Your task to perform on an android device: Open wifi settings Image 0: 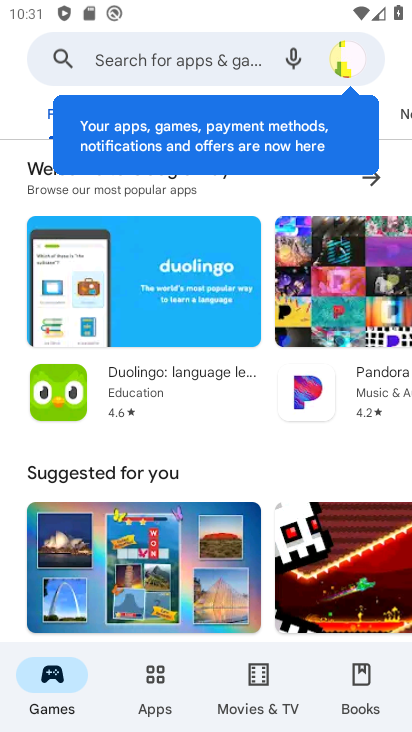
Step 0: press home button
Your task to perform on an android device: Open wifi settings Image 1: 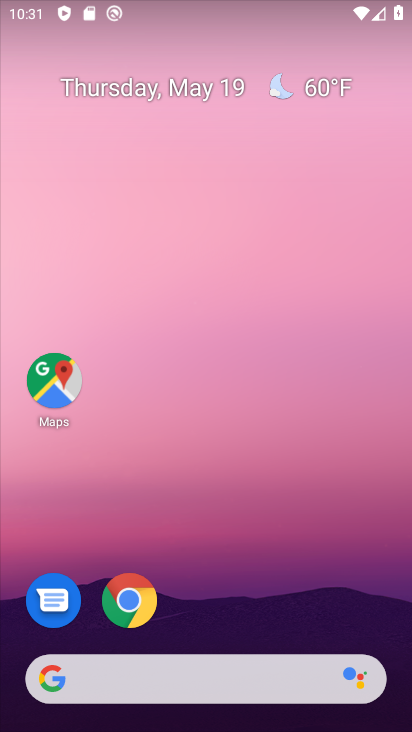
Step 1: drag from (385, 603) to (391, 269)
Your task to perform on an android device: Open wifi settings Image 2: 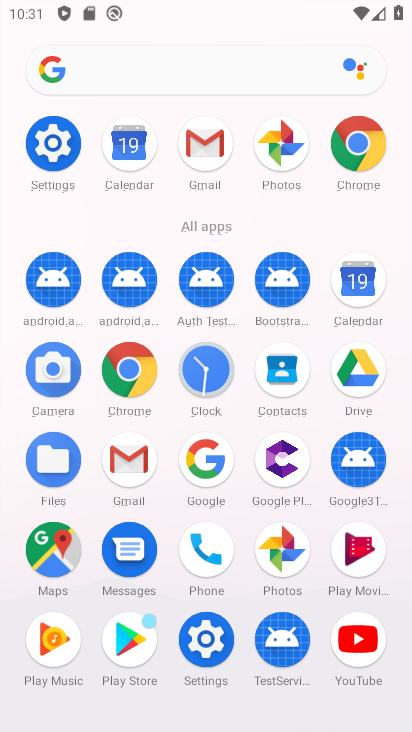
Step 2: click (57, 161)
Your task to perform on an android device: Open wifi settings Image 3: 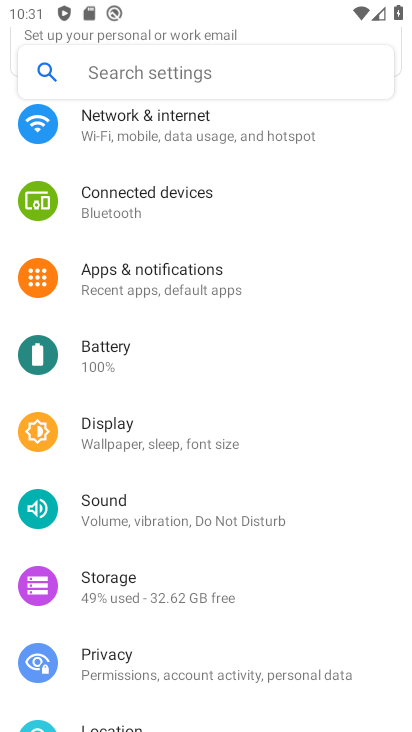
Step 3: drag from (320, 537) to (330, 461)
Your task to perform on an android device: Open wifi settings Image 4: 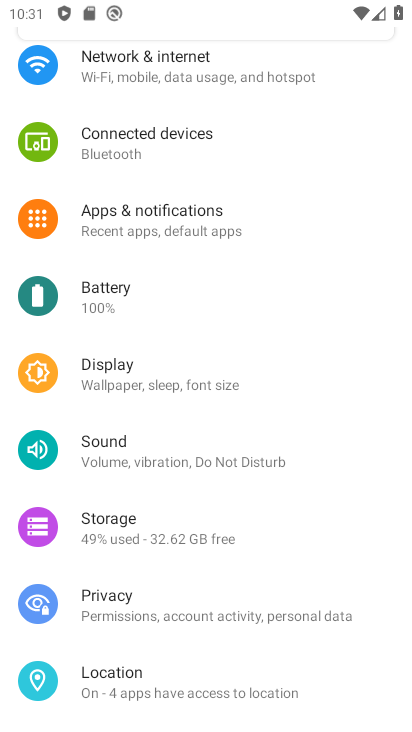
Step 4: drag from (328, 555) to (325, 471)
Your task to perform on an android device: Open wifi settings Image 5: 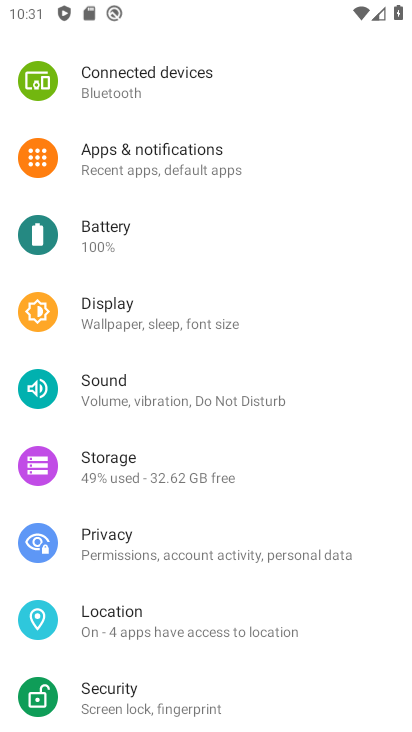
Step 5: drag from (319, 602) to (322, 498)
Your task to perform on an android device: Open wifi settings Image 6: 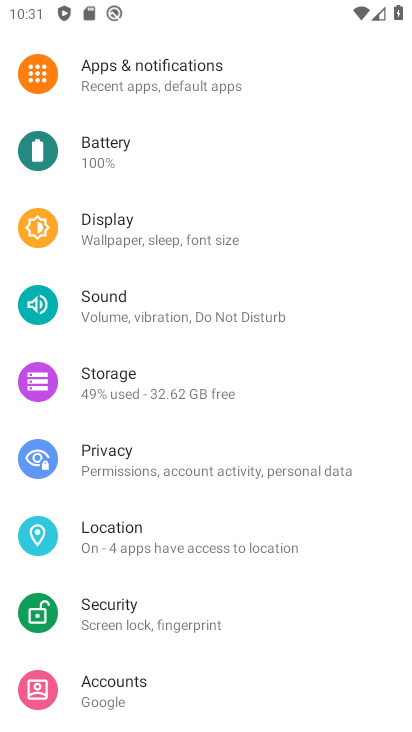
Step 6: drag from (321, 599) to (331, 511)
Your task to perform on an android device: Open wifi settings Image 7: 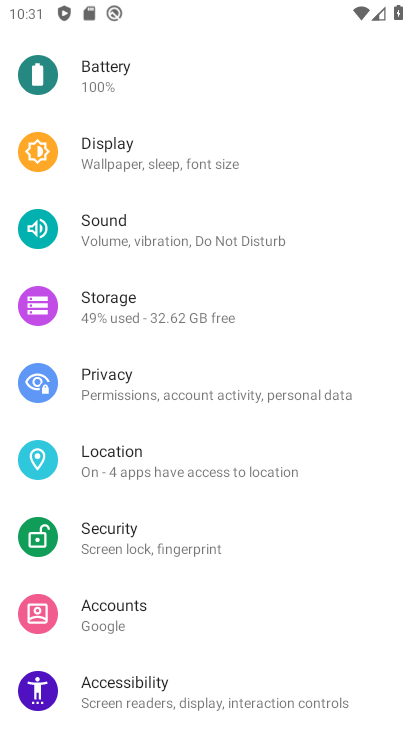
Step 7: drag from (322, 636) to (326, 545)
Your task to perform on an android device: Open wifi settings Image 8: 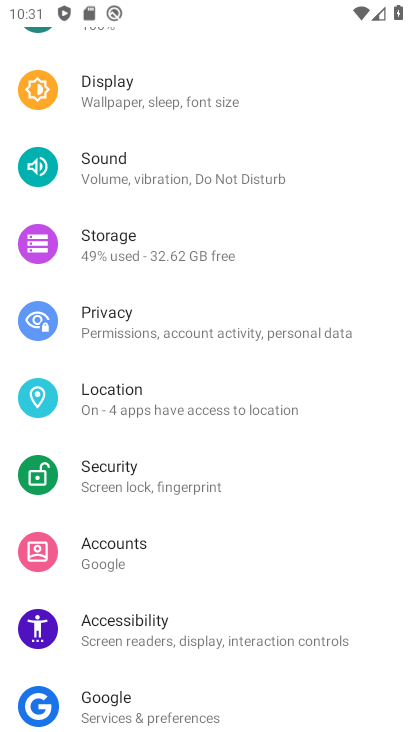
Step 8: drag from (319, 671) to (330, 514)
Your task to perform on an android device: Open wifi settings Image 9: 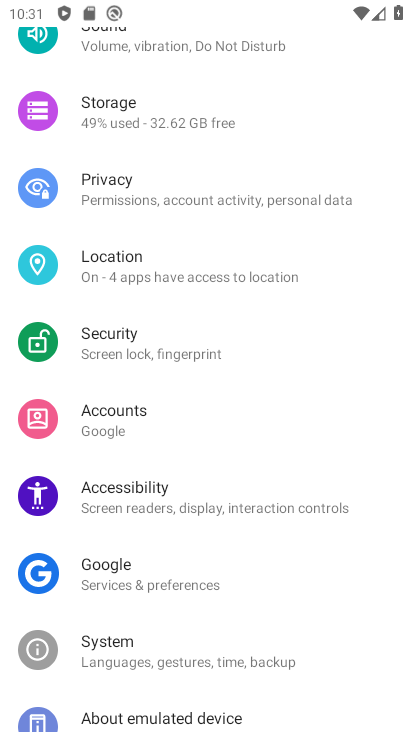
Step 9: drag from (326, 641) to (329, 566)
Your task to perform on an android device: Open wifi settings Image 10: 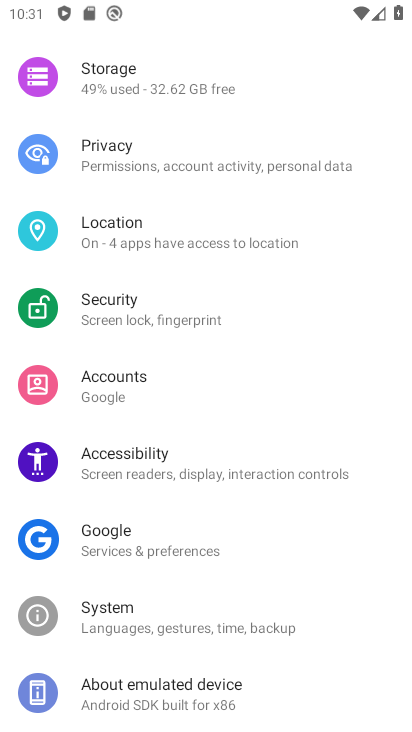
Step 10: drag from (335, 660) to (336, 604)
Your task to perform on an android device: Open wifi settings Image 11: 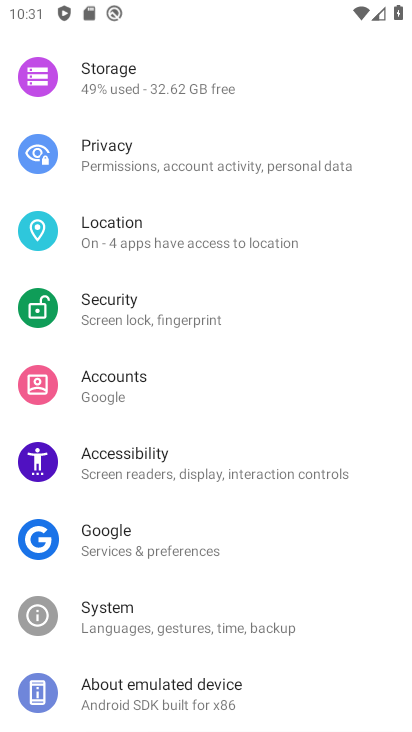
Step 11: drag from (354, 520) to (363, 612)
Your task to perform on an android device: Open wifi settings Image 12: 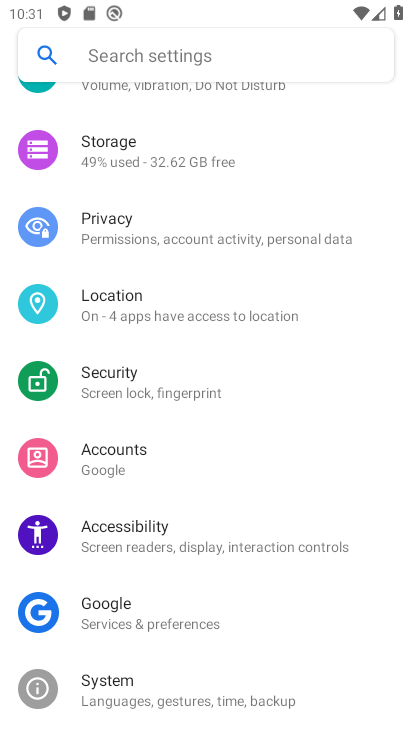
Step 12: drag from (354, 499) to (358, 589)
Your task to perform on an android device: Open wifi settings Image 13: 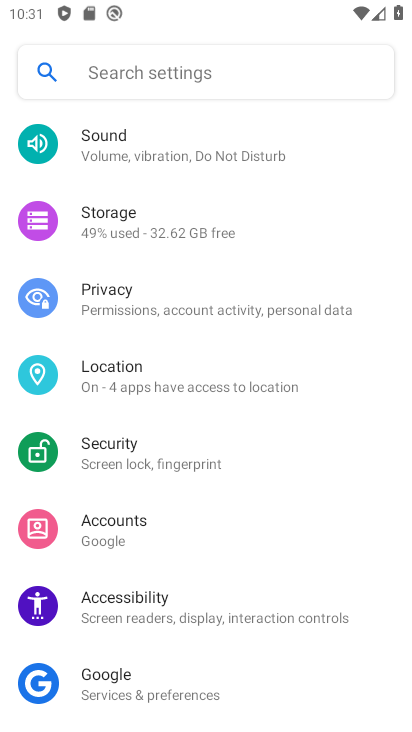
Step 13: drag from (350, 457) to (351, 538)
Your task to perform on an android device: Open wifi settings Image 14: 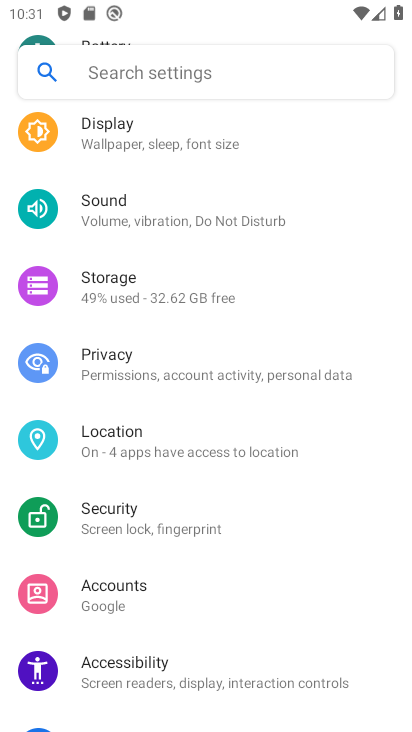
Step 14: drag from (341, 462) to (344, 545)
Your task to perform on an android device: Open wifi settings Image 15: 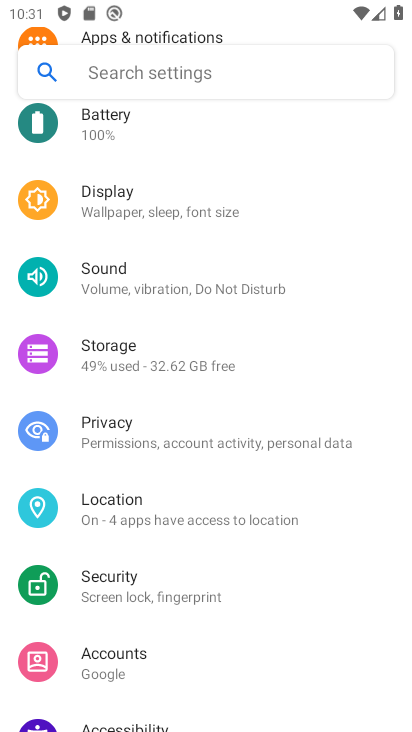
Step 15: drag from (351, 405) to (357, 505)
Your task to perform on an android device: Open wifi settings Image 16: 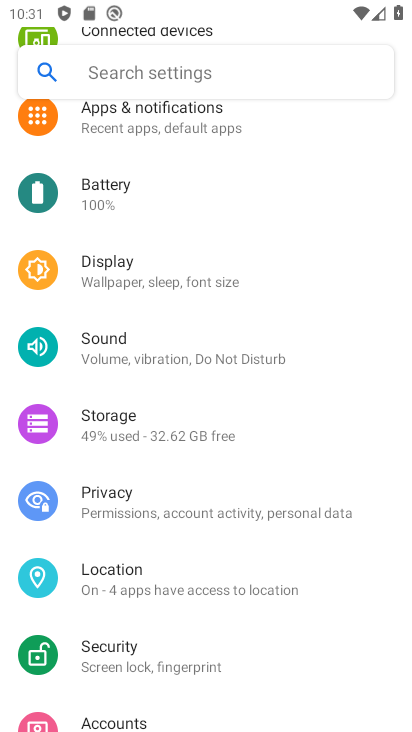
Step 16: drag from (354, 379) to (361, 470)
Your task to perform on an android device: Open wifi settings Image 17: 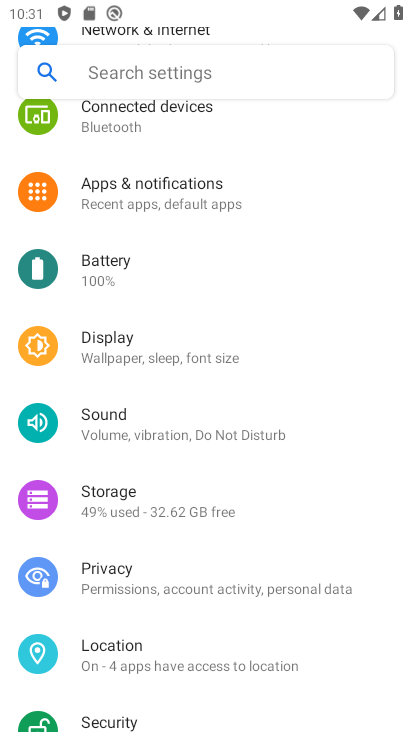
Step 17: drag from (353, 325) to (353, 413)
Your task to perform on an android device: Open wifi settings Image 18: 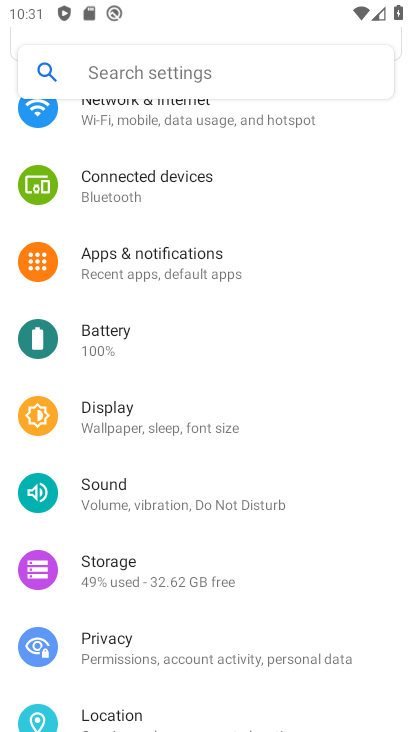
Step 18: drag from (352, 327) to (365, 382)
Your task to perform on an android device: Open wifi settings Image 19: 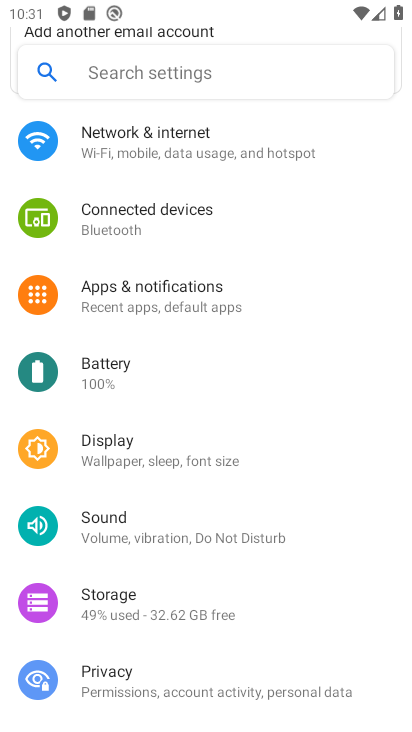
Step 19: drag from (342, 337) to (351, 385)
Your task to perform on an android device: Open wifi settings Image 20: 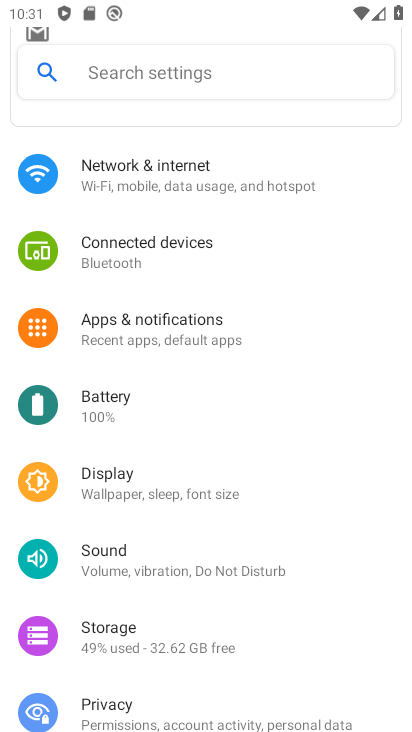
Step 20: drag from (344, 291) to (365, 375)
Your task to perform on an android device: Open wifi settings Image 21: 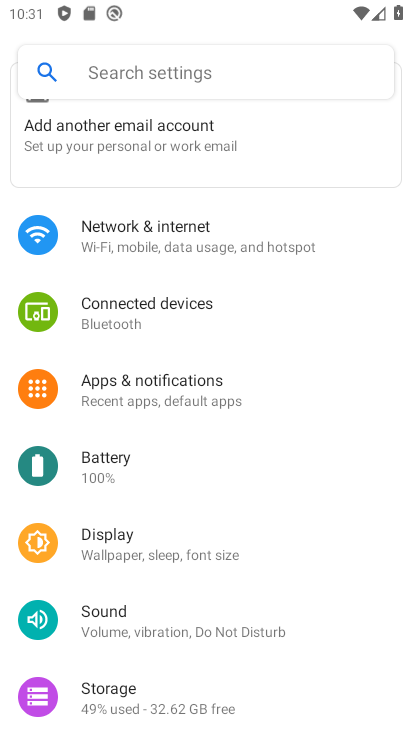
Step 21: drag from (355, 328) to (362, 397)
Your task to perform on an android device: Open wifi settings Image 22: 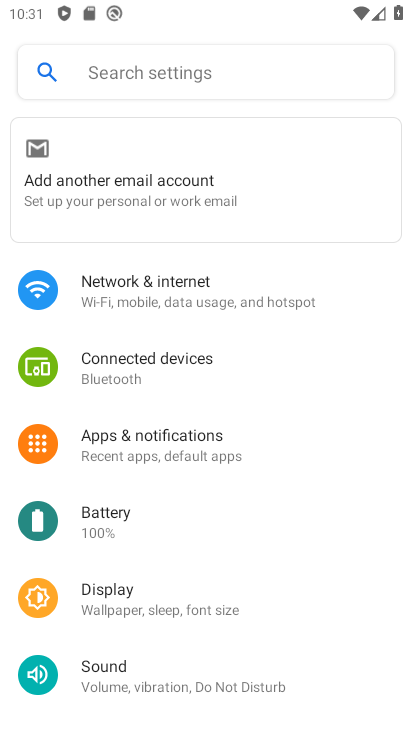
Step 22: click (279, 308)
Your task to perform on an android device: Open wifi settings Image 23: 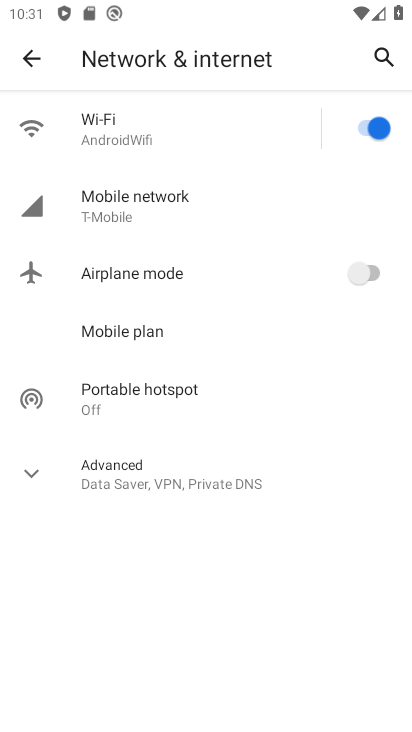
Step 23: click (179, 140)
Your task to perform on an android device: Open wifi settings Image 24: 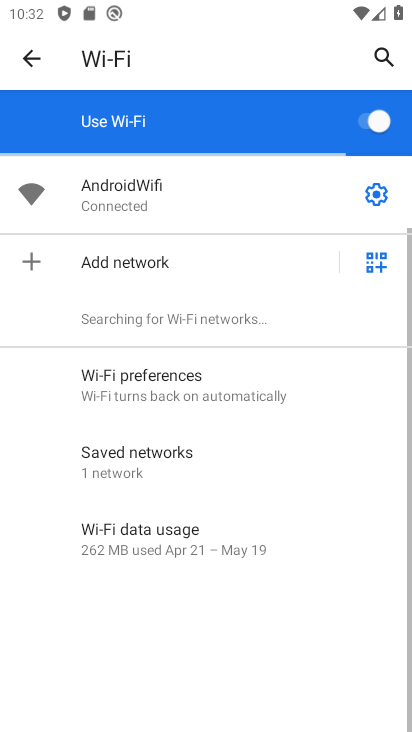
Step 24: task complete